Your task to perform on an android device: Go to Android settings Image 0: 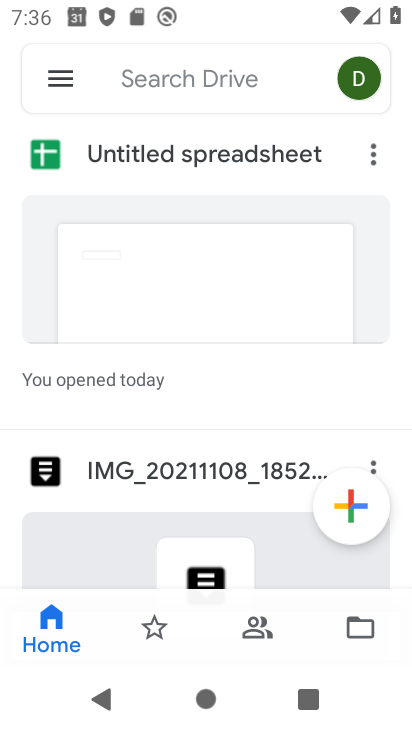
Step 0: press home button
Your task to perform on an android device: Go to Android settings Image 1: 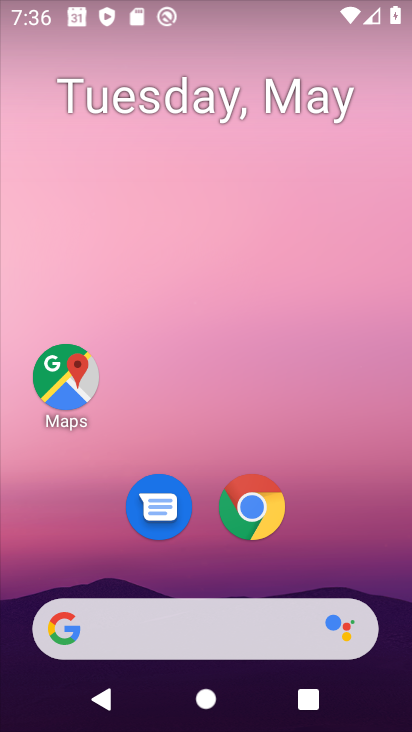
Step 1: drag from (216, 581) to (260, 36)
Your task to perform on an android device: Go to Android settings Image 2: 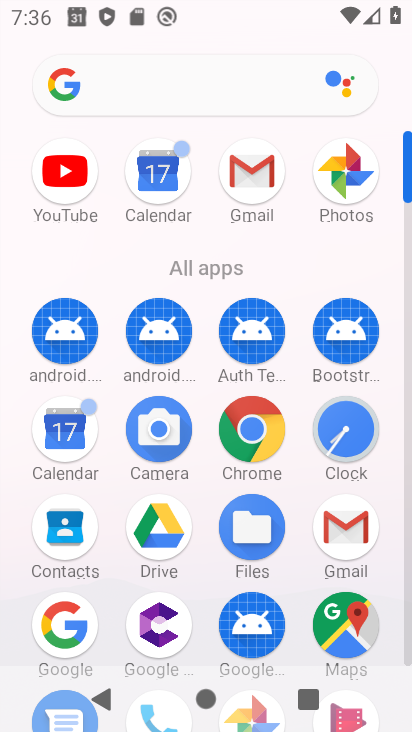
Step 2: drag from (198, 496) to (268, 249)
Your task to perform on an android device: Go to Android settings Image 3: 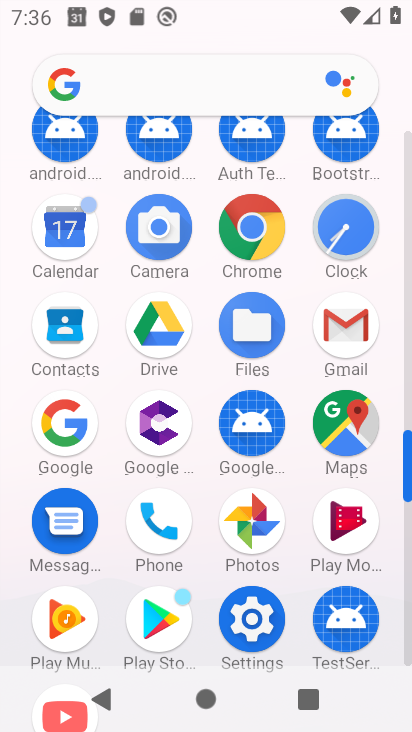
Step 3: click (245, 619)
Your task to perform on an android device: Go to Android settings Image 4: 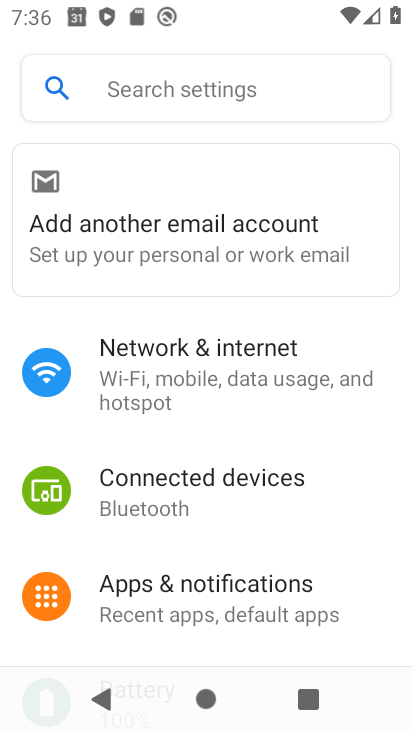
Step 4: drag from (230, 605) to (237, 372)
Your task to perform on an android device: Go to Android settings Image 5: 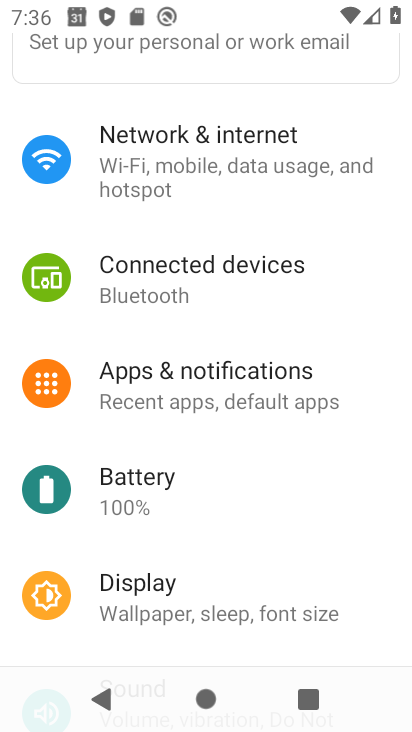
Step 5: drag from (208, 569) to (254, 356)
Your task to perform on an android device: Go to Android settings Image 6: 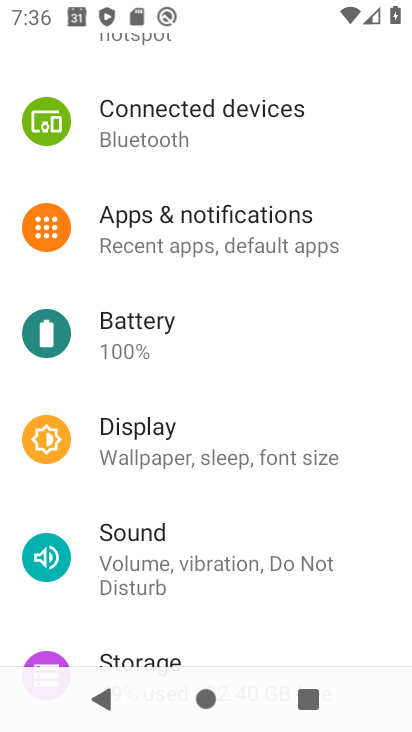
Step 6: drag from (239, 600) to (253, 300)
Your task to perform on an android device: Go to Android settings Image 7: 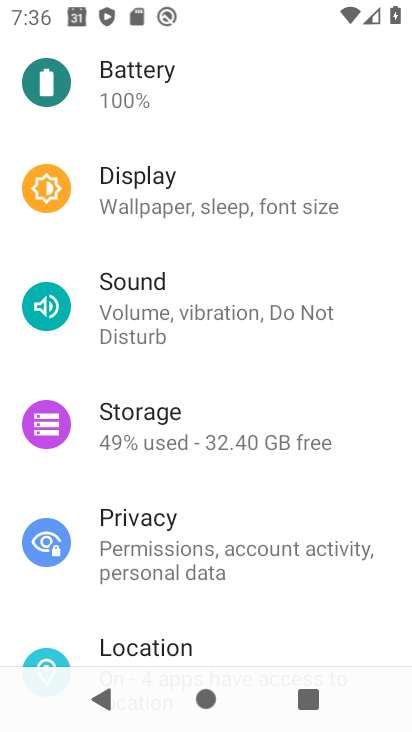
Step 7: drag from (224, 603) to (295, 346)
Your task to perform on an android device: Go to Android settings Image 8: 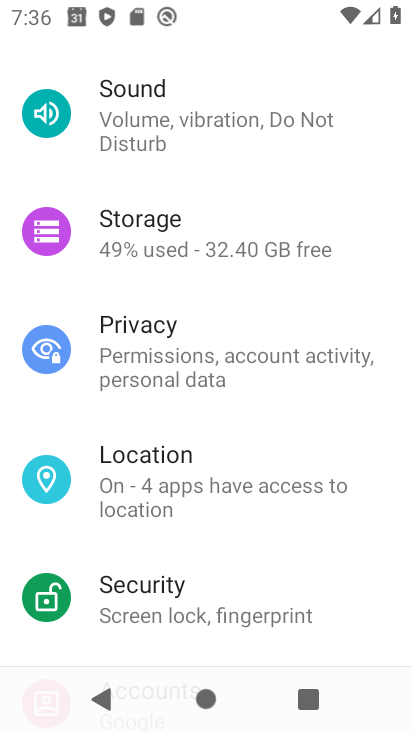
Step 8: drag from (230, 574) to (216, 365)
Your task to perform on an android device: Go to Android settings Image 9: 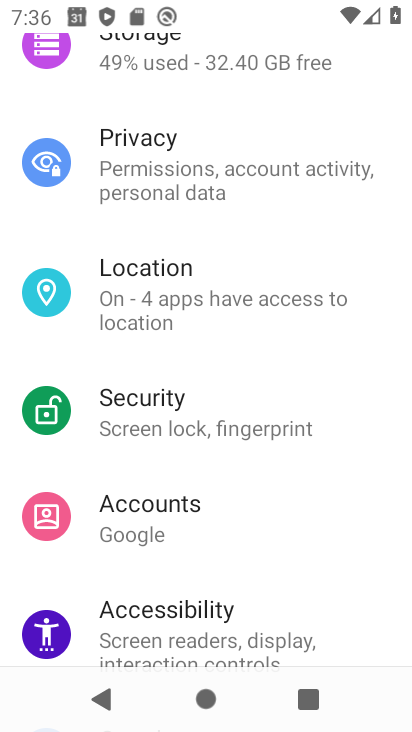
Step 9: drag from (258, 596) to (234, 388)
Your task to perform on an android device: Go to Android settings Image 10: 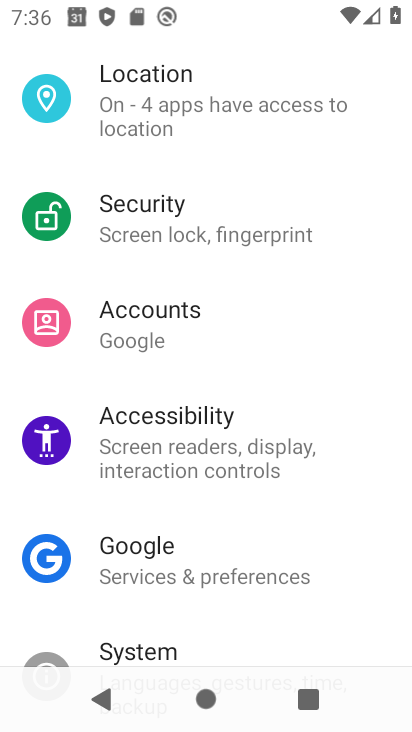
Step 10: drag from (188, 616) to (206, 421)
Your task to perform on an android device: Go to Android settings Image 11: 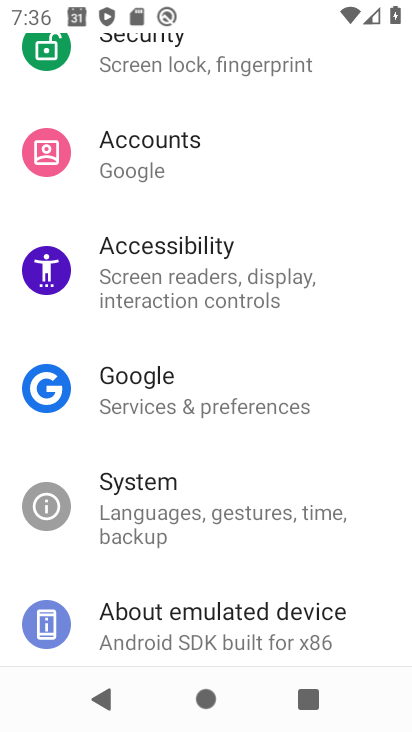
Step 11: click (190, 528)
Your task to perform on an android device: Go to Android settings Image 12: 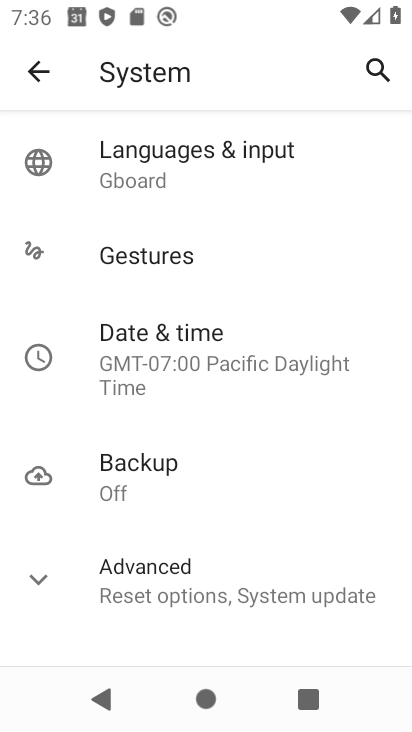
Step 12: task complete